Your task to perform on an android device: Is it going to rain today? Image 0: 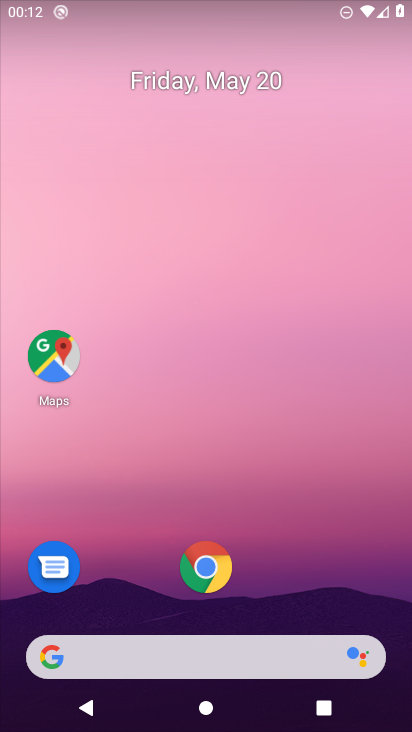
Step 0: drag from (11, 226) to (410, 232)
Your task to perform on an android device: Is it going to rain today? Image 1: 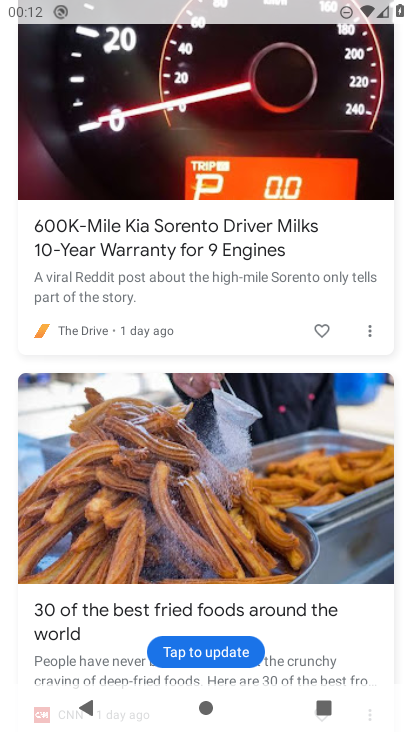
Step 1: drag from (196, 103) to (214, 667)
Your task to perform on an android device: Is it going to rain today? Image 2: 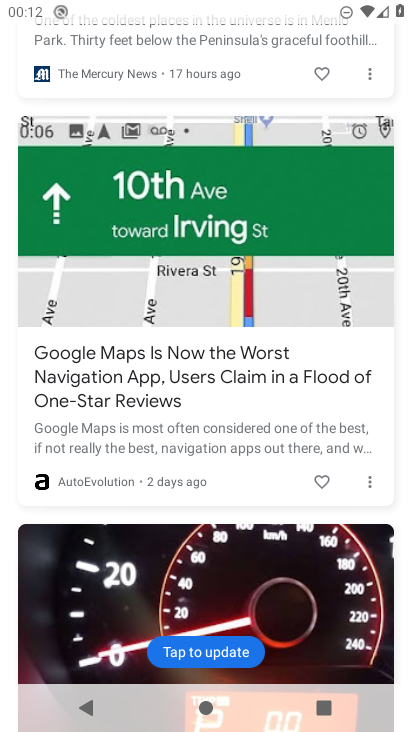
Step 2: drag from (219, 123) to (195, 696)
Your task to perform on an android device: Is it going to rain today? Image 3: 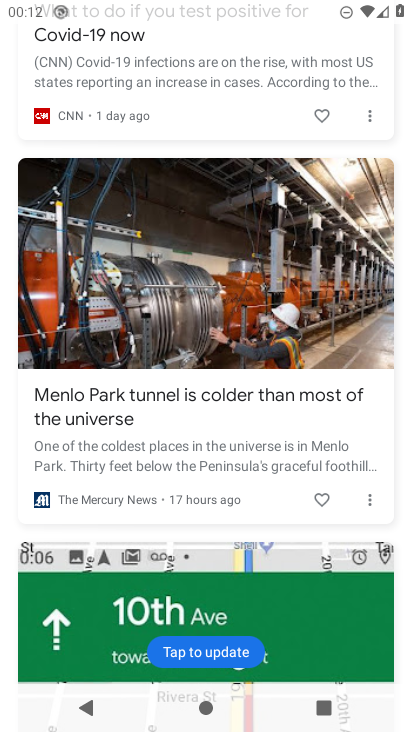
Step 3: drag from (226, 97) to (214, 582)
Your task to perform on an android device: Is it going to rain today? Image 4: 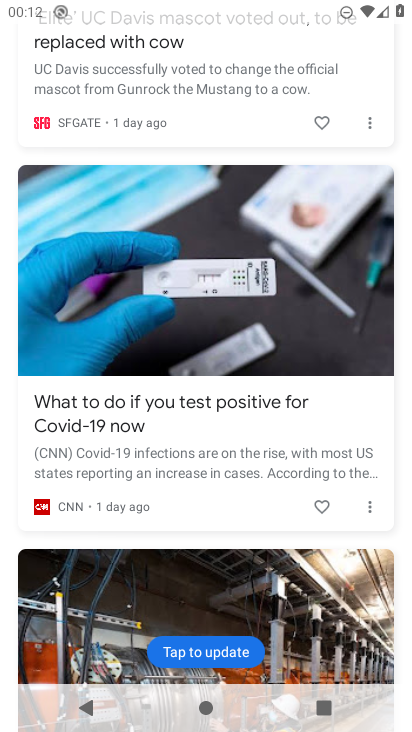
Step 4: drag from (173, 57) to (169, 676)
Your task to perform on an android device: Is it going to rain today? Image 5: 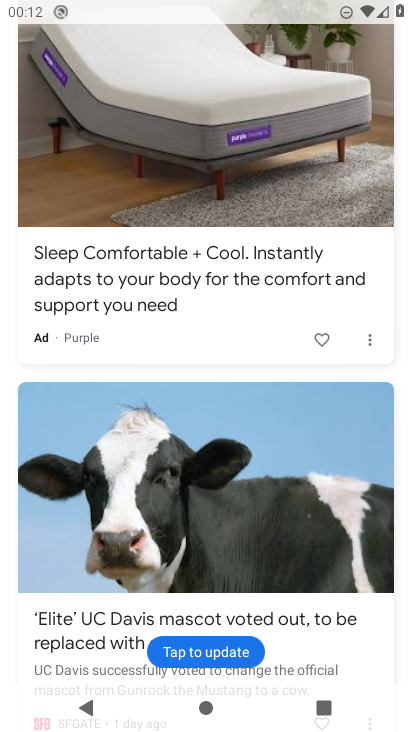
Step 5: drag from (236, 150) to (213, 722)
Your task to perform on an android device: Is it going to rain today? Image 6: 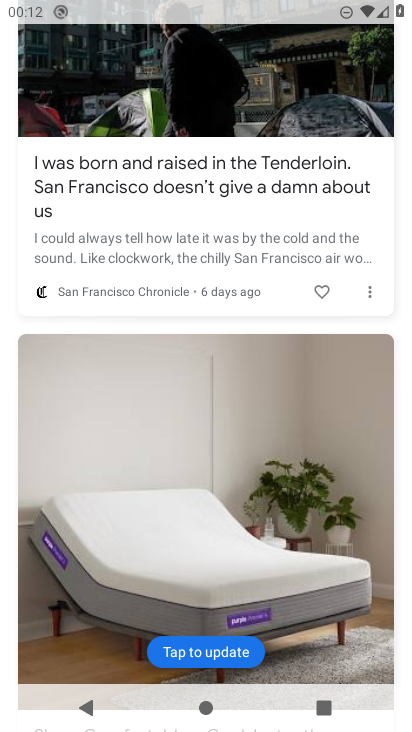
Step 6: drag from (250, 97) to (233, 727)
Your task to perform on an android device: Is it going to rain today? Image 7: 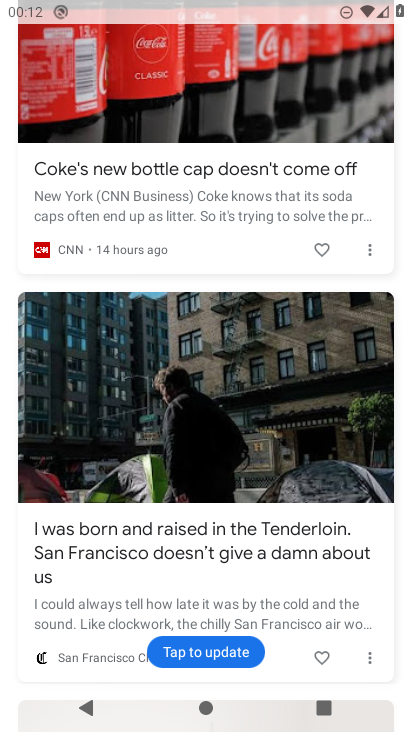
Step 7: drag from (219, 79) to (182, 714)
Your task to perform on an android device: Is it going to rain today? Image 8: 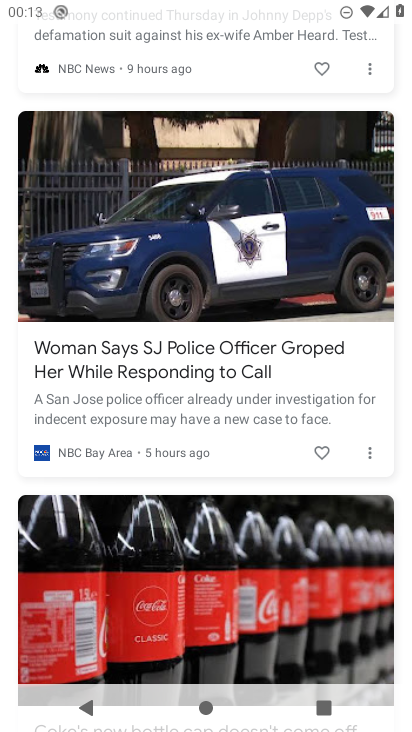
Step 8: drag from (251, 151) to (172, 716)
Your task to perform on an android device: Is it going to rain today? Image 9: 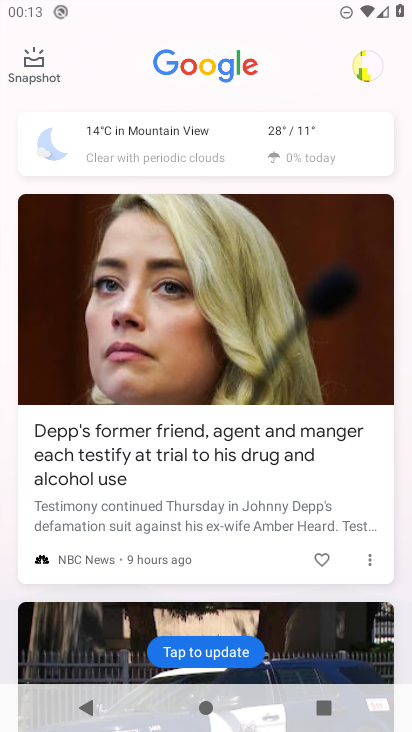
Step 9: click (245, 136)
Your task to perform on an android device: Is it going to rain today? Image 10: 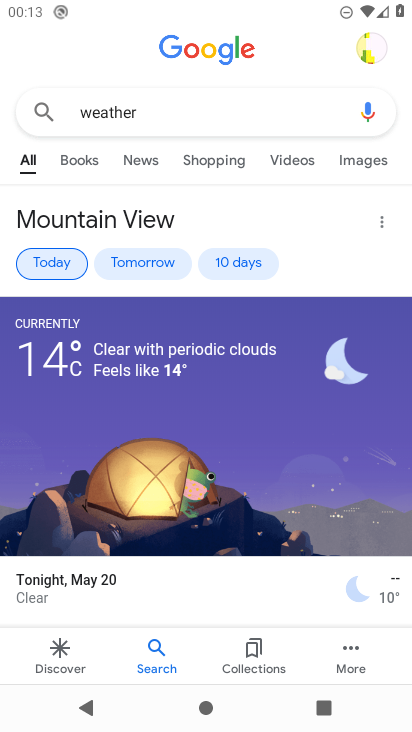
Step 10: task complete